Your task to perform on an android device: Go to notification settings Image 0: 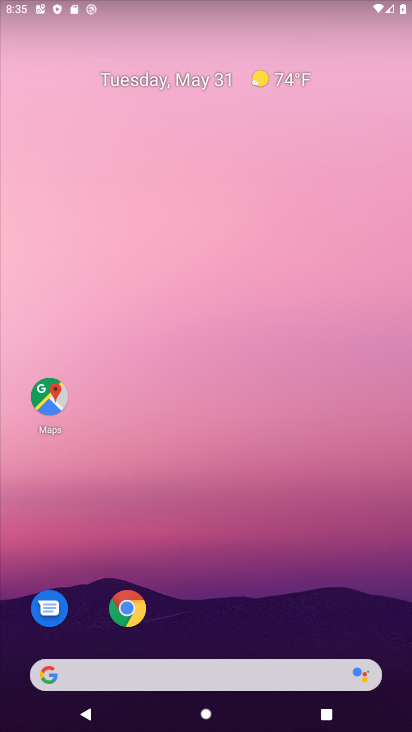
Step 0: press home button
Your task to perform on an android device: Go to notification settings Image 1: 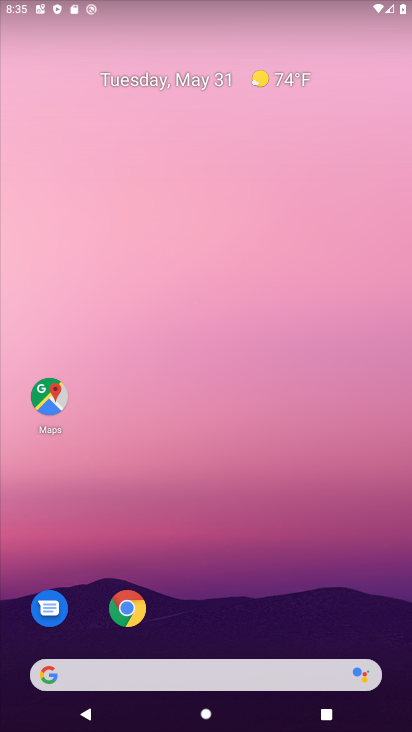
Step 1: drag from (205, 634) to (146, 15)
Your task to perform on an android device: Go to notification settings Image 2: 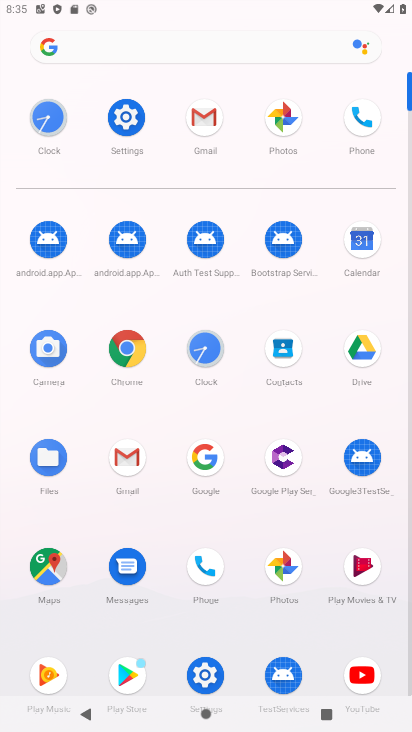
Step 2: click (188, 674)
Your task to perform on an android device: Go to notification settings Image 3: 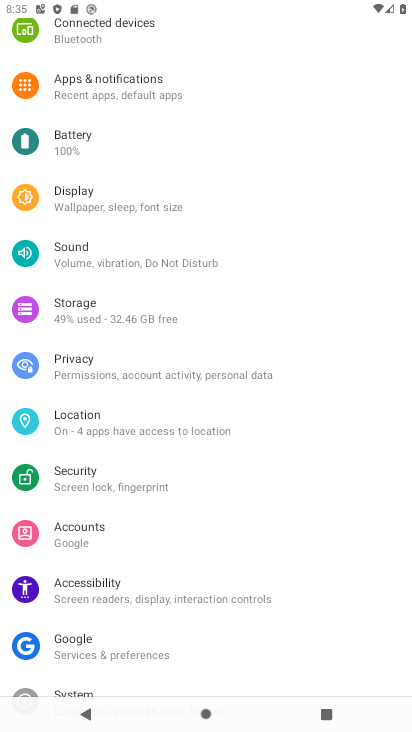
Step 3: click (130, 100)
Your task to perform on an android device: Go to notification settings Image 4: 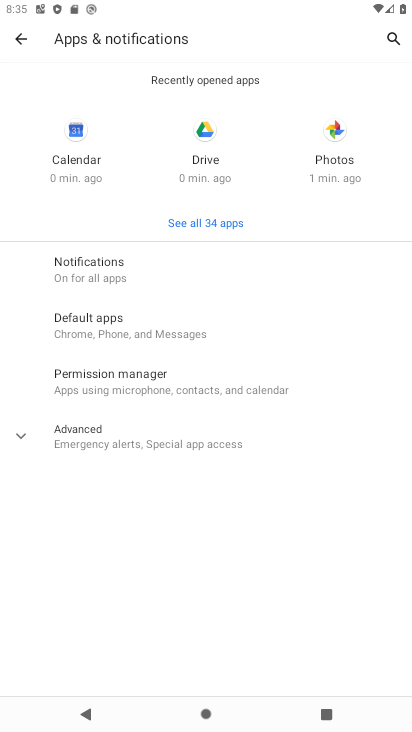
Step 4: click (171, 280)
Your task to perform on an android device: Go to notification settings Image 5: 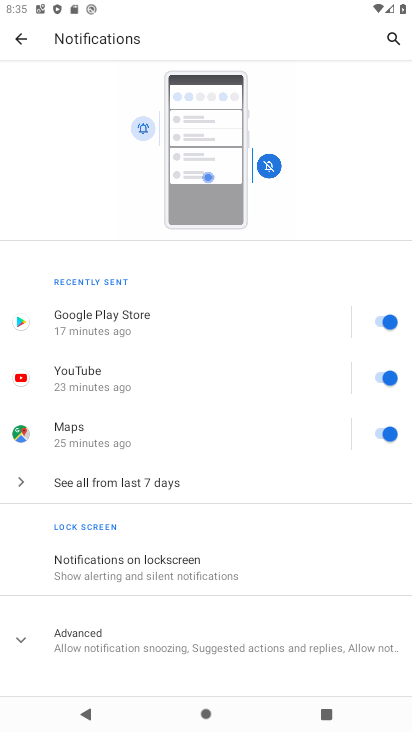
Step 5: task complete